Your task to perform on an android device: See recent photos Image 0: 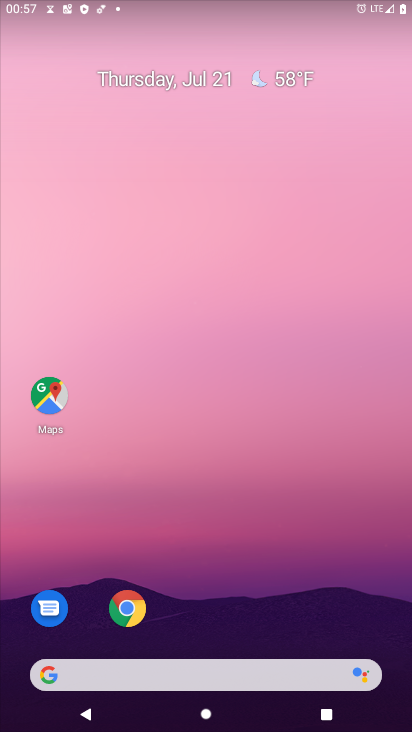
Step 0: press home button
Your task to perform on an android device: See recent photos Image 1: 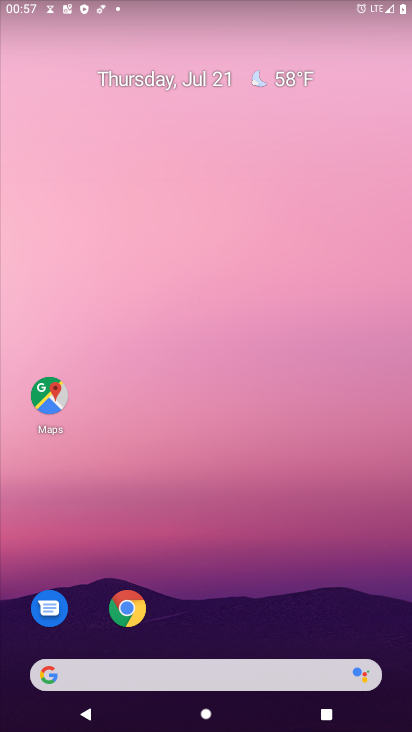
Step 1: drag from (220, 645) to (238, 87)
Your task to perform on an android device: See recent photos Image 2: 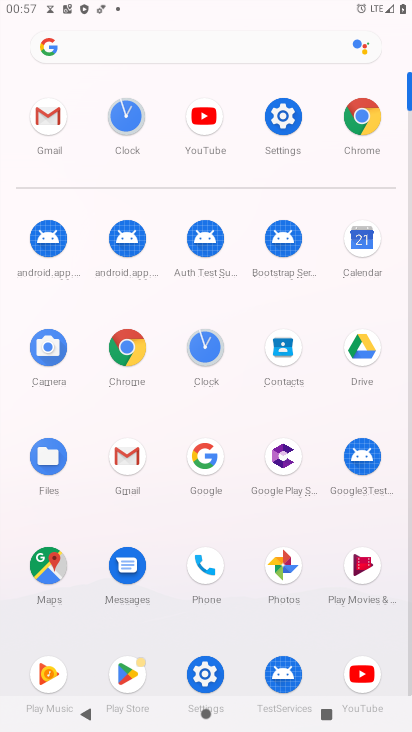
Step 2: click (281, 557)
Your task to perform on an android device: See recent photos Image 3: 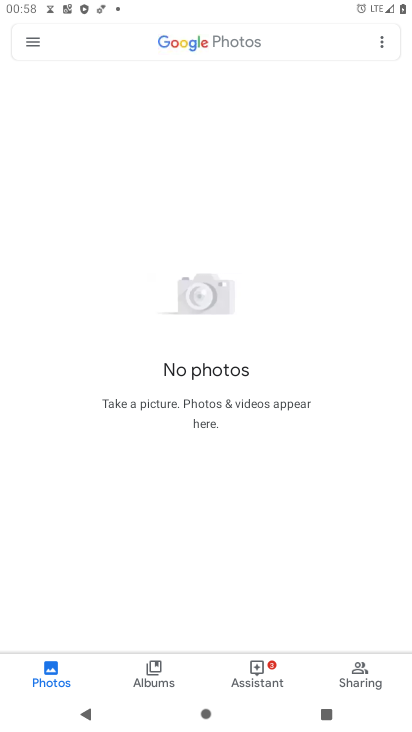
Step 3: task complete